Your task to perform on an android device: Open ESPN.com Image 0: 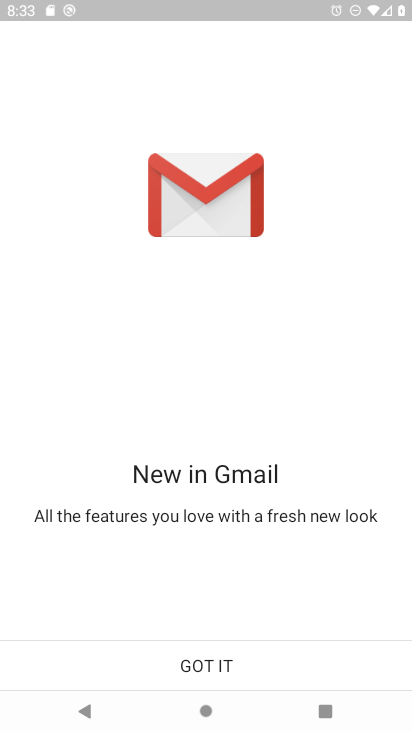
Step 0: press home button
Your task to perform on an android device: Open ESPN.com Image 1: 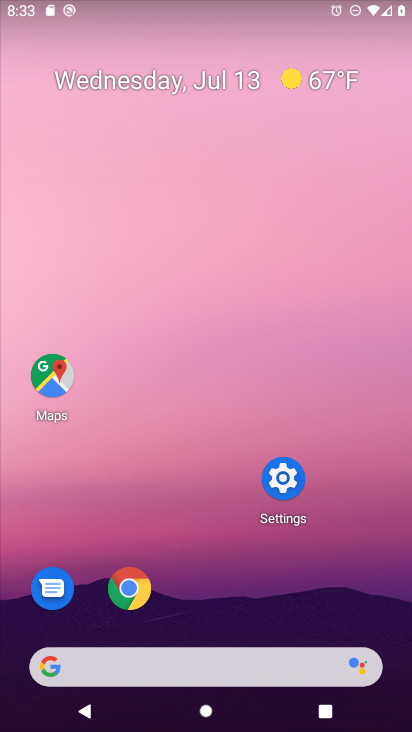
Step 1: click (126, 601)
Your task to perform on an android device: Open ESPN.com Image 2: 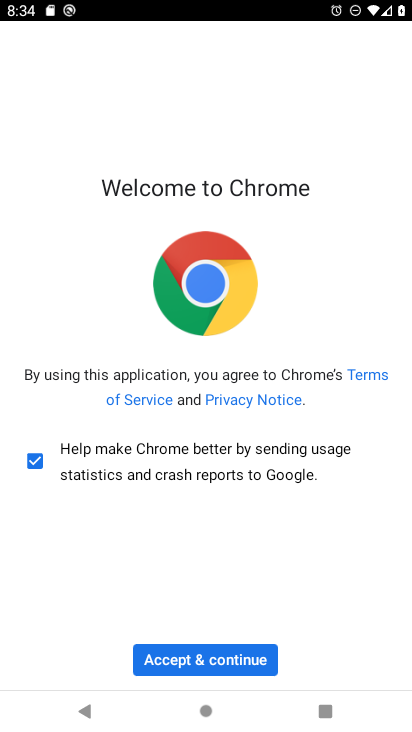
Step 2: click (161, 661)
Your task to perform on an android device: Open ESPN.com Image 3: 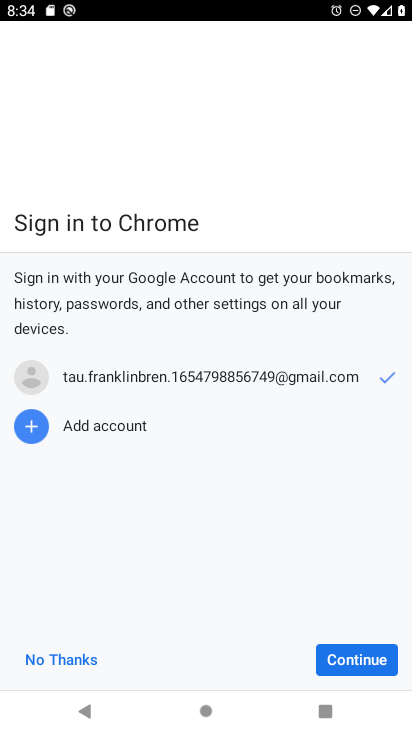
Step 3: click (349, 651)
Your task to perform on an android device: Open ESPN.com Image 4: 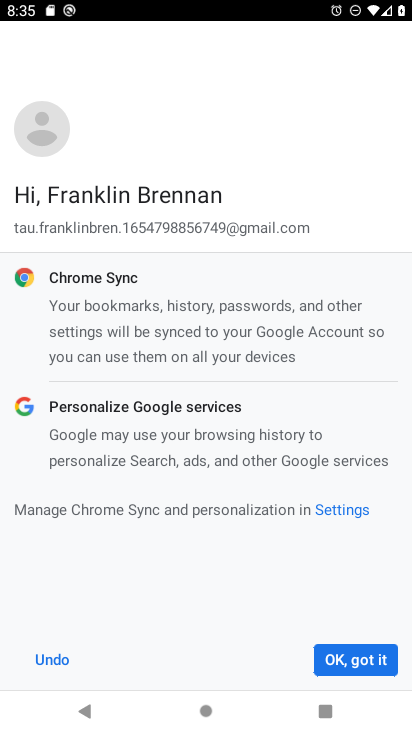
Step 4: click (349, 664)
Your task to perform on an android device: Open ESPN.com Image 5: 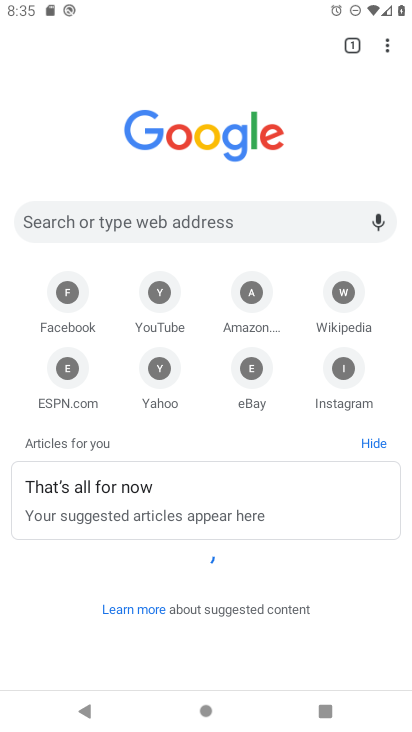
Step 5: click (63, 372)
Your task to perform on an android device: Open ESPN.com Image 6: 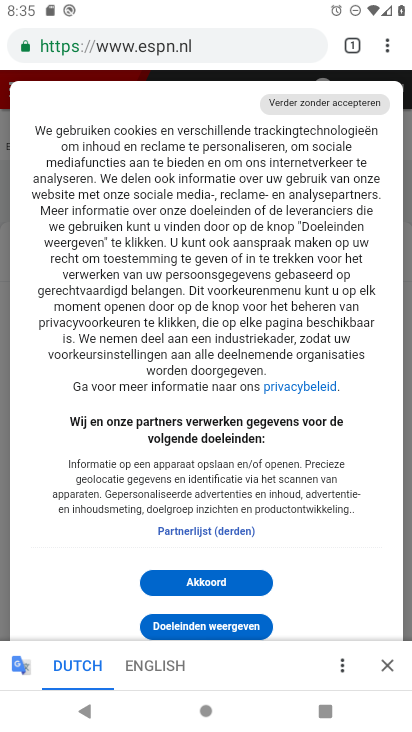
Step 6: click (189, 566)
Your task to perform on an android device: Open ESPN.com Image 7: 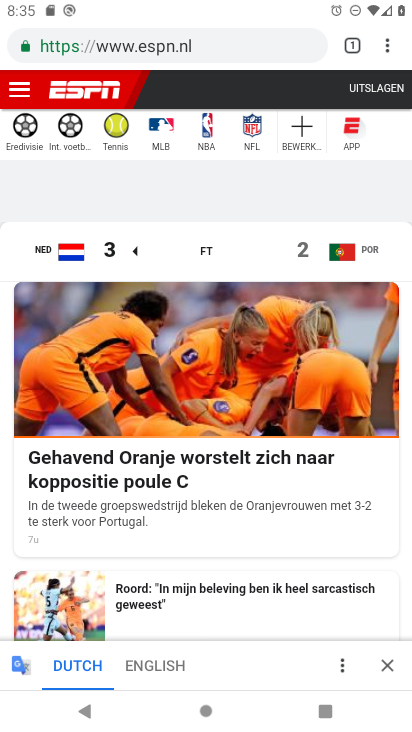
Step 7: task complete